Your task to perform on an android device: Go to Amazon Image 0: 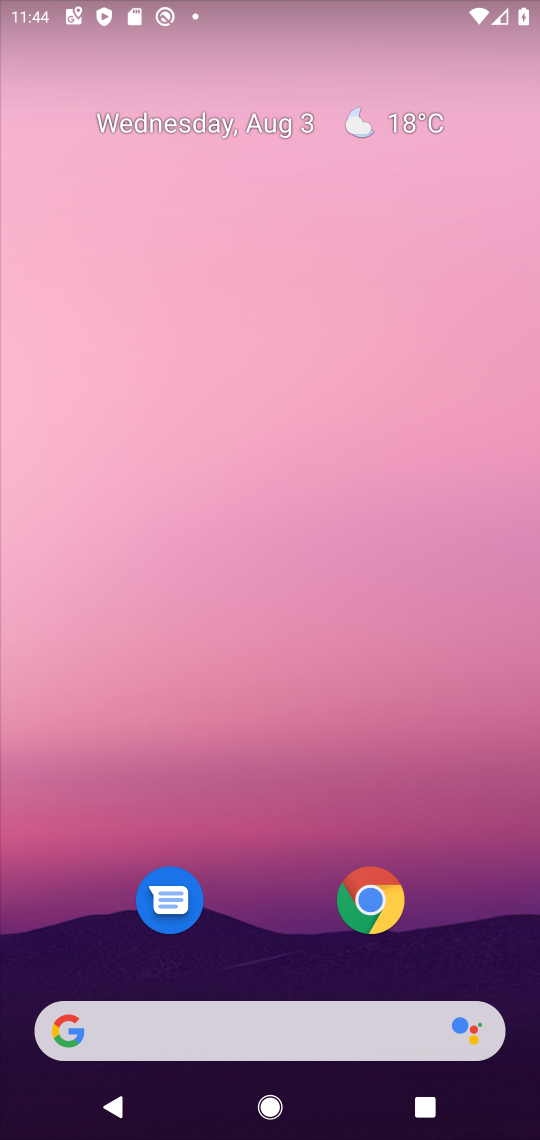
Step 0: press home button
Your task to perform on an android device: Go to Amazon Image 1: 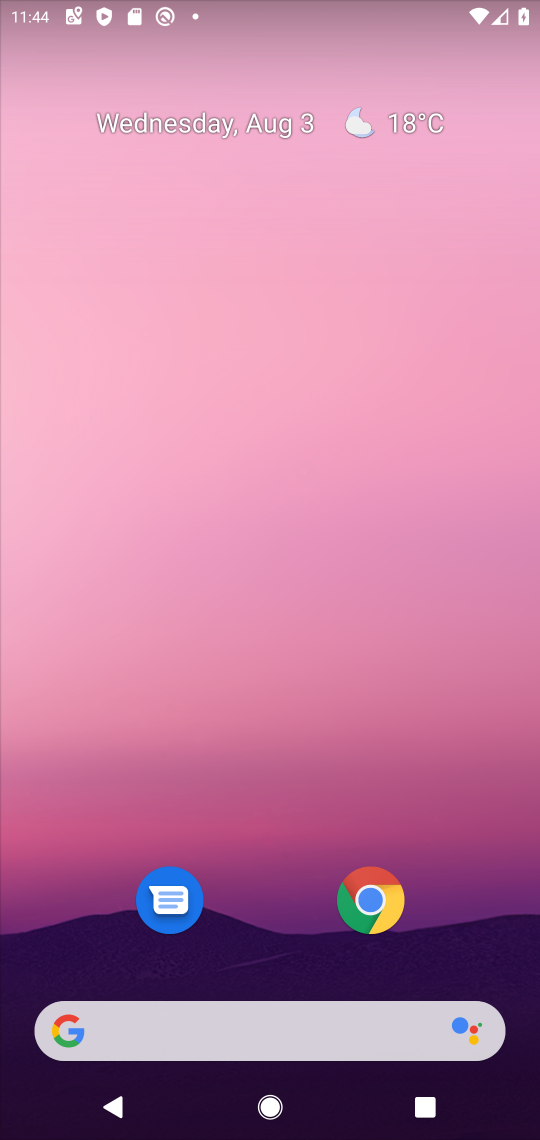
Step 1: click (60, 1030)
Your task to perform on an android device: Go to Amazon Image 2: 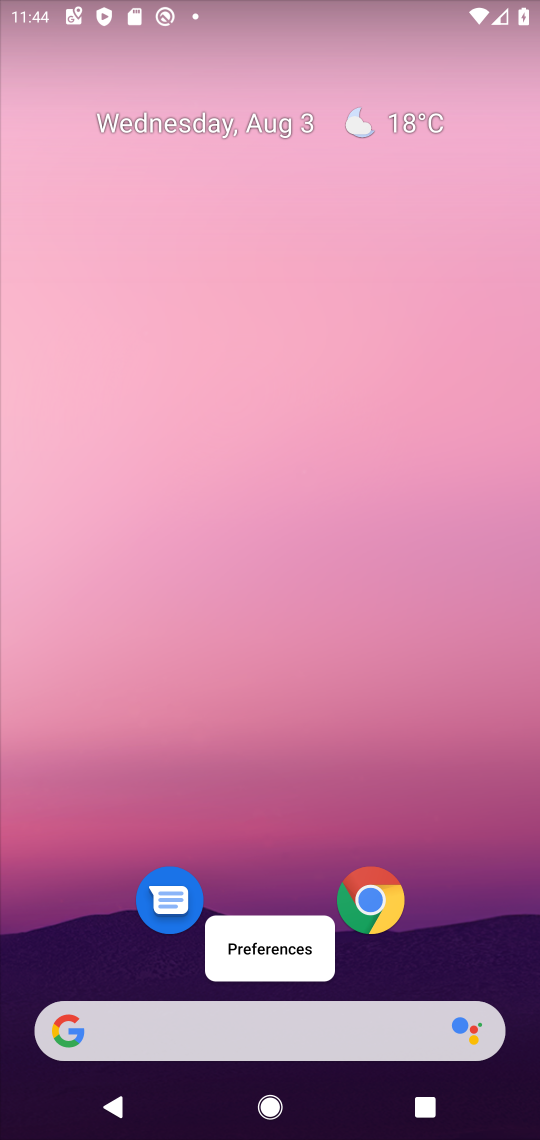
Step 2: click (62, 1023)
Your task to perform on an android device: Go to Amazon Image 3: 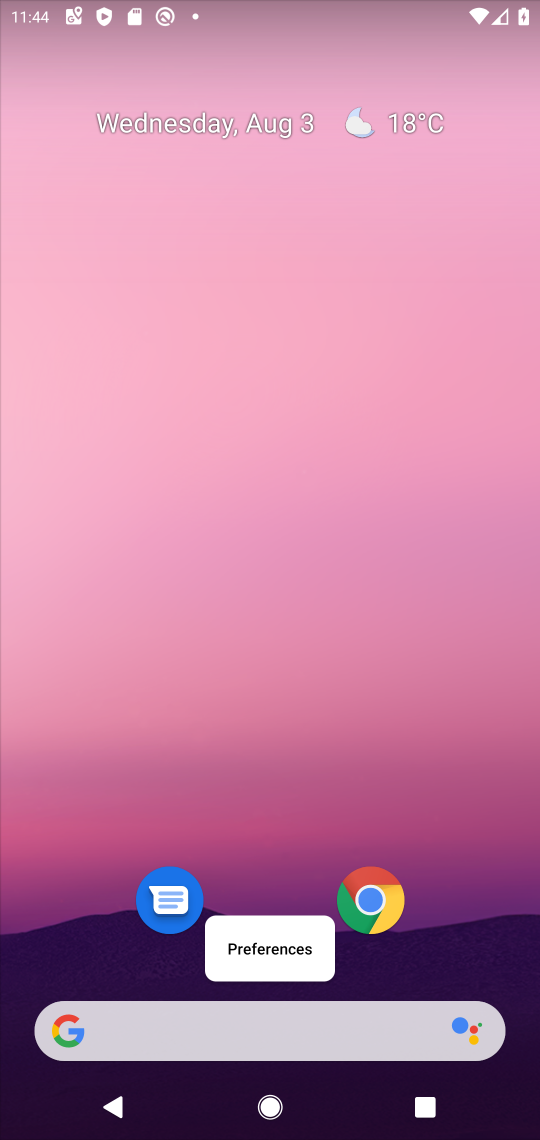
Step 3: click (59, 1019)
Your task to perform on an android device: Go to Amazon Image 4: 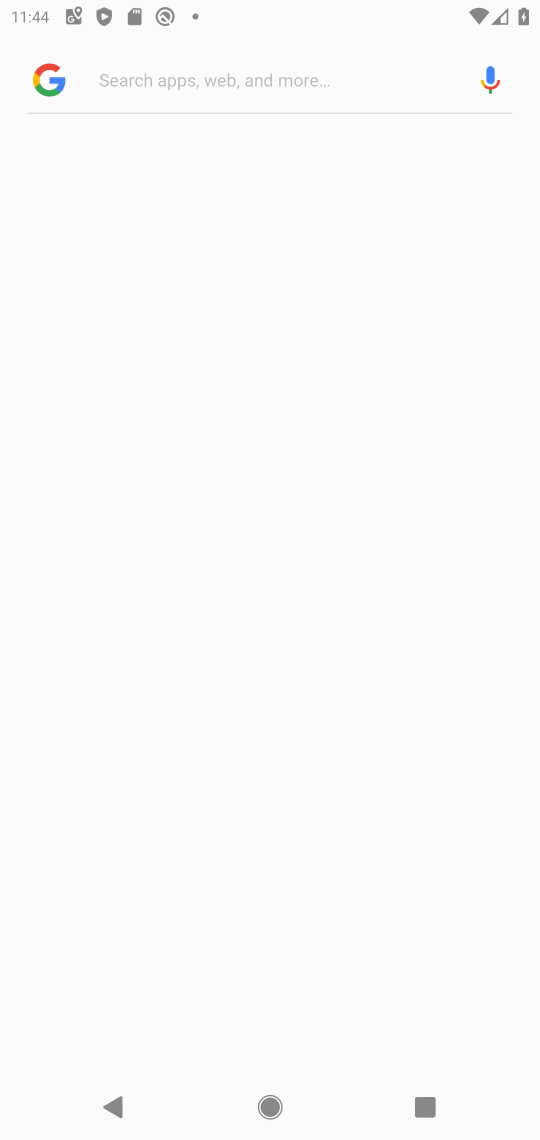
Step 4: click (47, 1029)
Your task to perform on an android device: Go to Amazon Image 5: 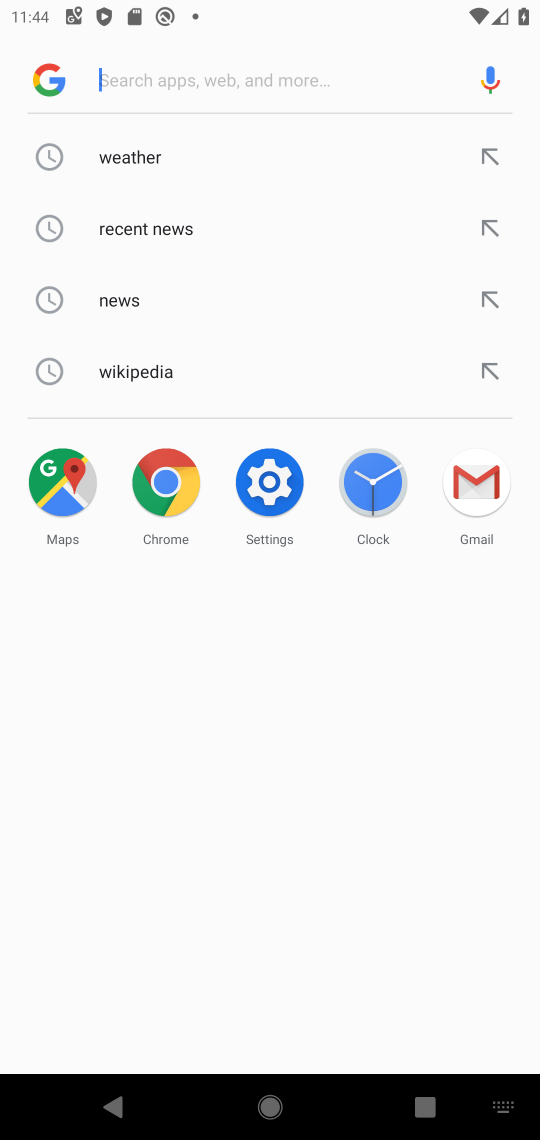
Step 5: type "Amazon"
Your task to perform on an android device: Go to Amazon Image 6: 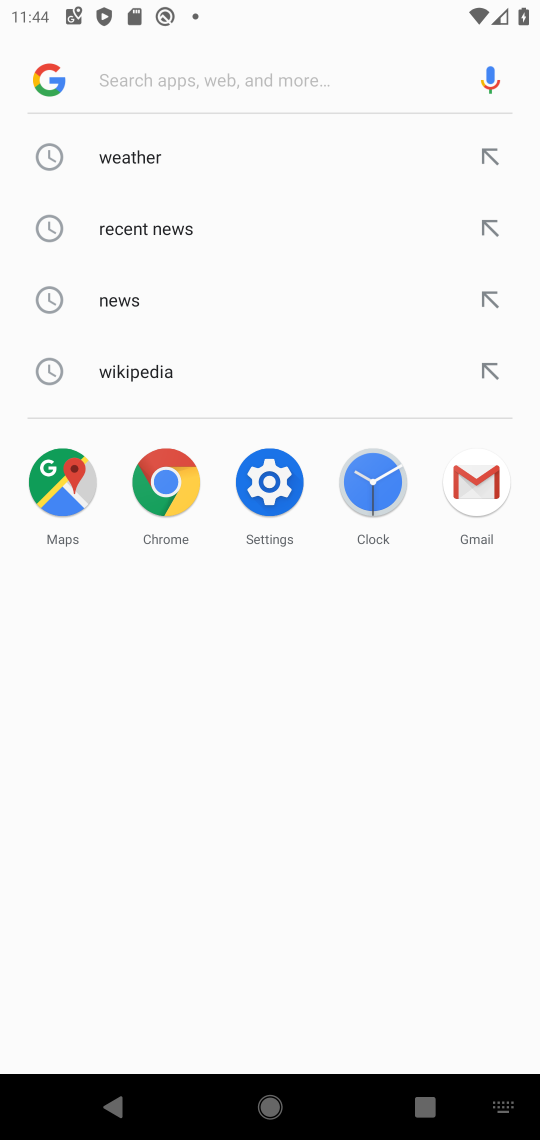
Step 6: click (238, 76)
Your task to perform on an android device: Go to Amazon Image 7: 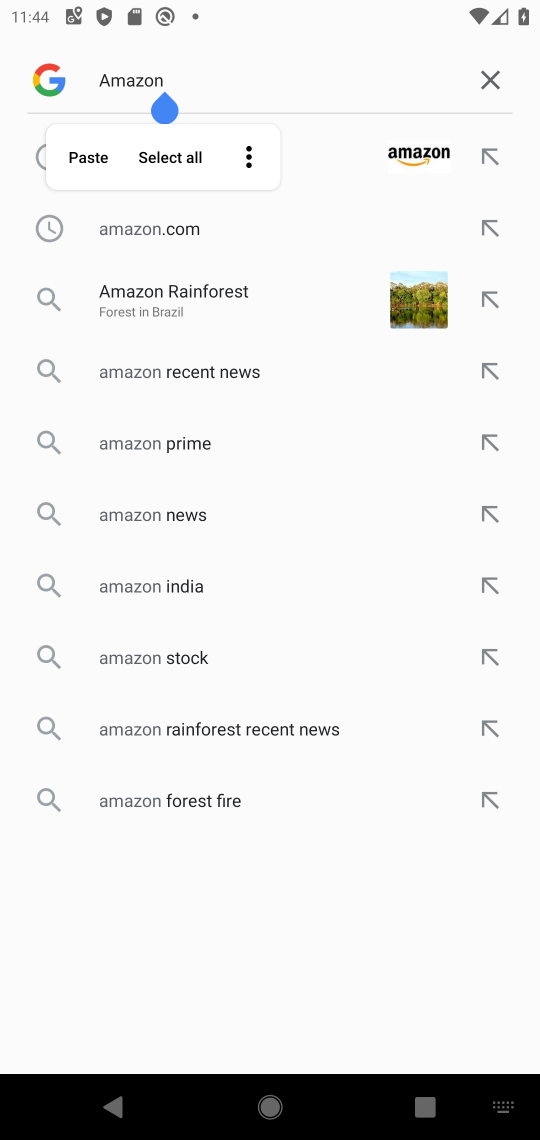
Step 7: click (402, 154)
Your task to perform on an android device: Go to Amazon Image 8: 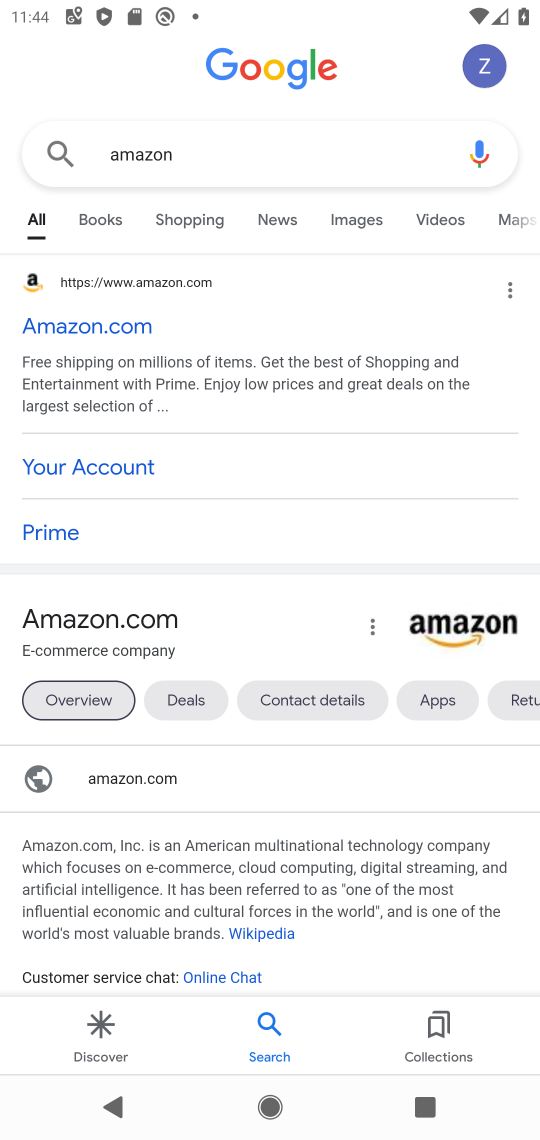
Step 8: click (139, 774)
Your task to perform on an android device: Go to Amazon Image 9: 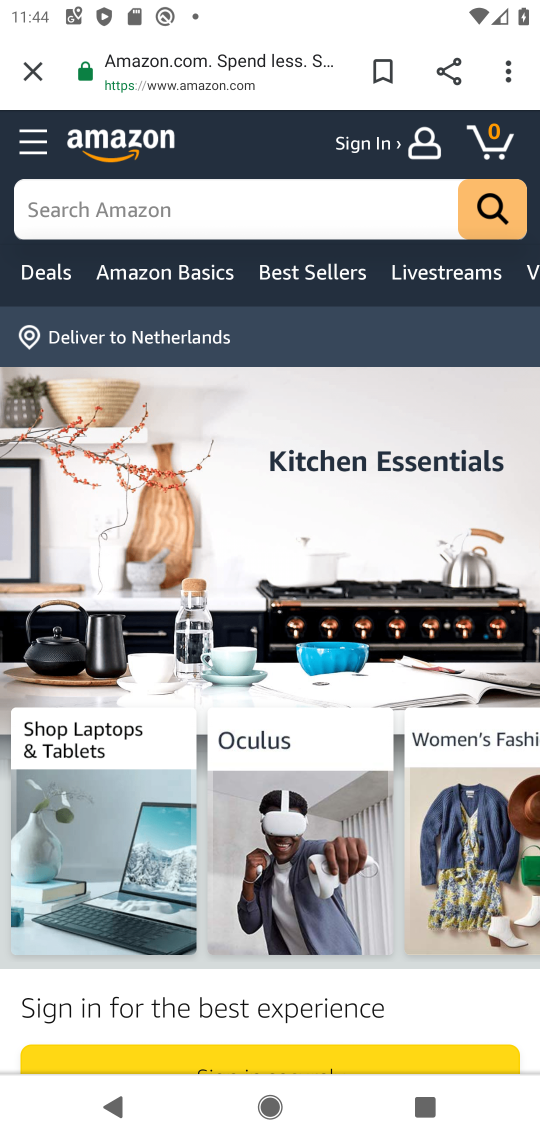
Step 9: task complete